Your task to perform on an android device: Search for sushi restaurants on Maps Image 0: 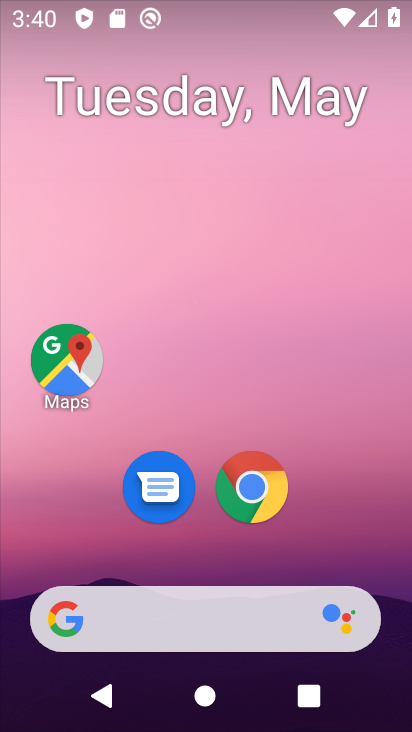
Step 0: click (80, 357)
Your task to perform on an android device: Search for sushi restaurants on Maps Image 1: 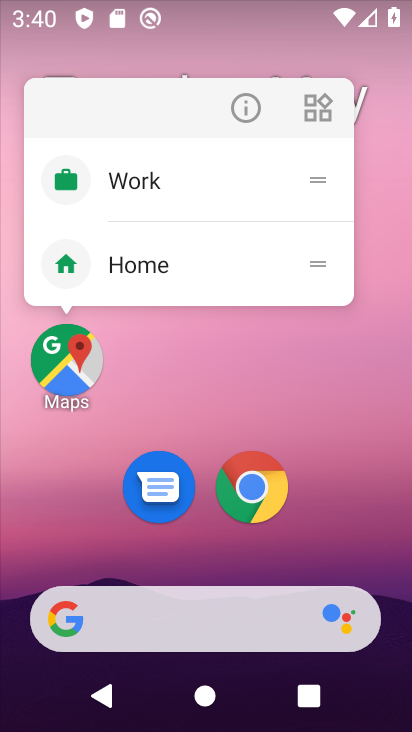
Step 1: click (79, 356)
Your task to perform on an android device: Search for sushi restaurants on Maps Image 2: 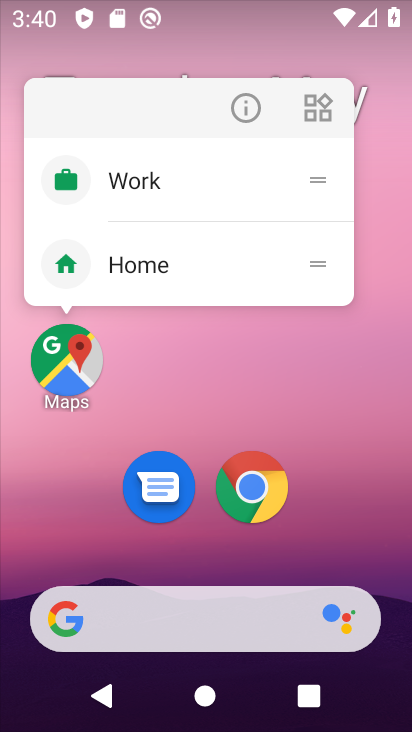
Step 2: click (79, 355)
Your task to perform on an android device: Search for sushi restaurants on Maps Image 3: 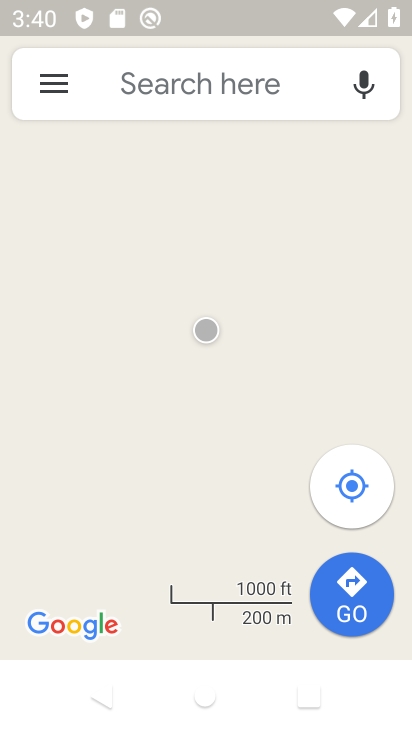
Step 3: click (238, 82)
Your task to perform on an android device: Search for sushi restaurants on Maps Image 4: 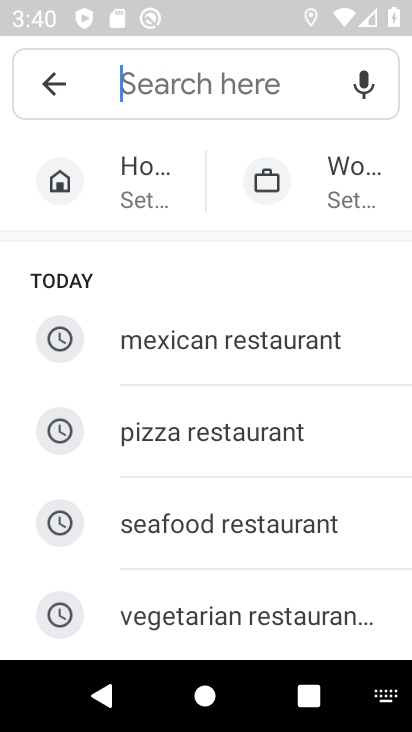
Step 4: type "sushi restaurants"
Your task to perform on an android device: Search for sushi restaurants on Maps Image 5: 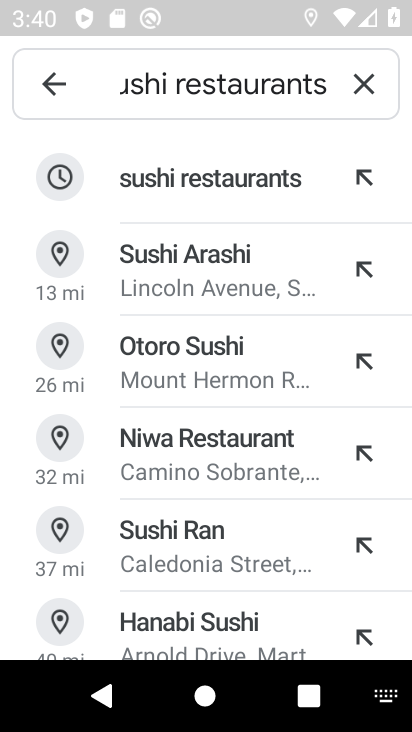
Step 5: click (217, 181)
Your task to perform on an android device: Search for sushi restaurants on Maps Image 6: 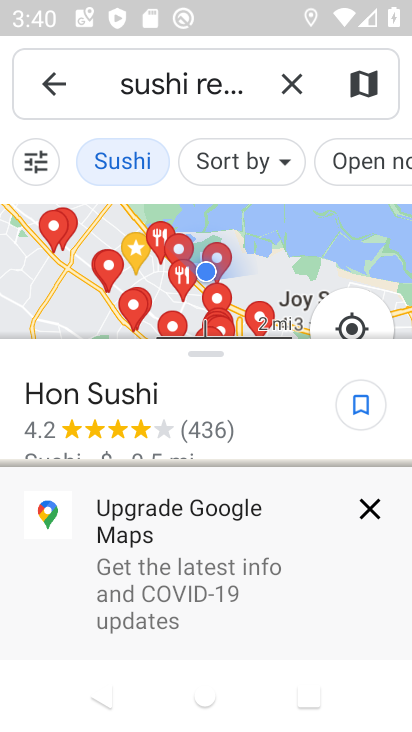
Step 6: click (376, 512)
Your task to perform on an android device: Search for sushi restaurants on Maps Image 7: 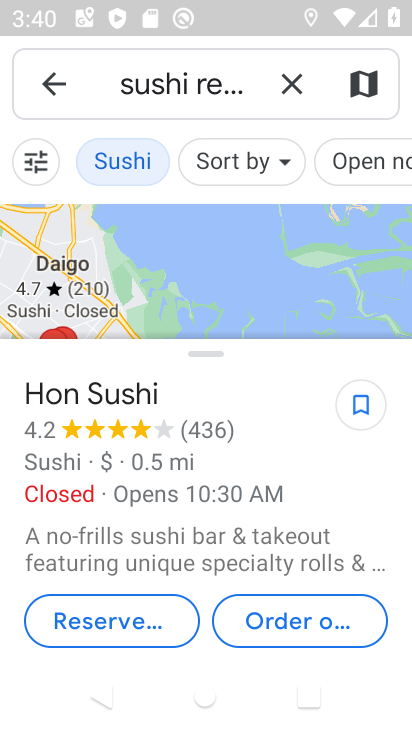
Step 7: task complete